Your task to perform on an android device: Go to wifi settings Image 0: 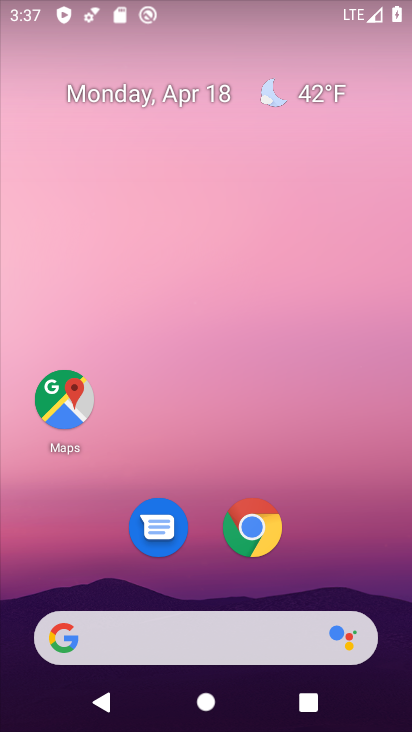
Step 0: drag from (399, 627) to (350, 71)
Your task to perform on an android device: Go to wifi settings Image 1: 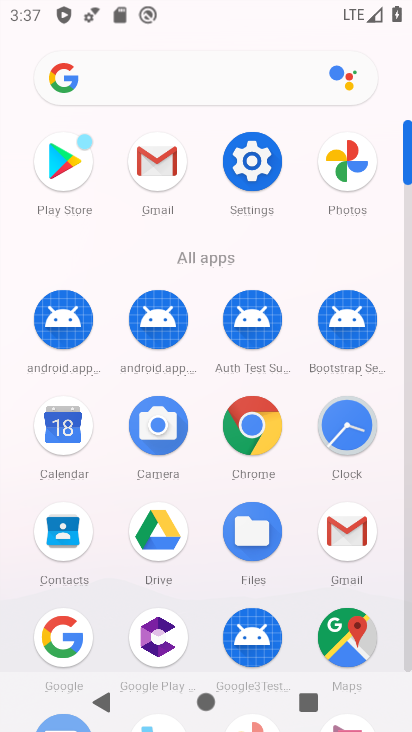
Step 1: click (410, 650)
Your task to perform on an android device: Go to wifi settings Image 2: 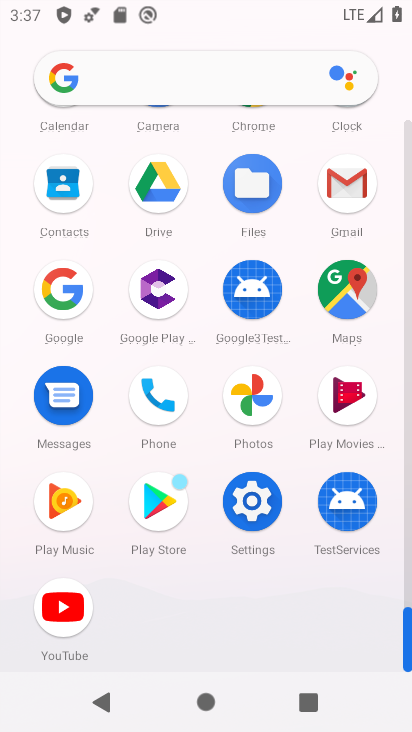
Step 2: click (252, 500)
Your task to perform on an android device: Go to wifi settings Image 3: 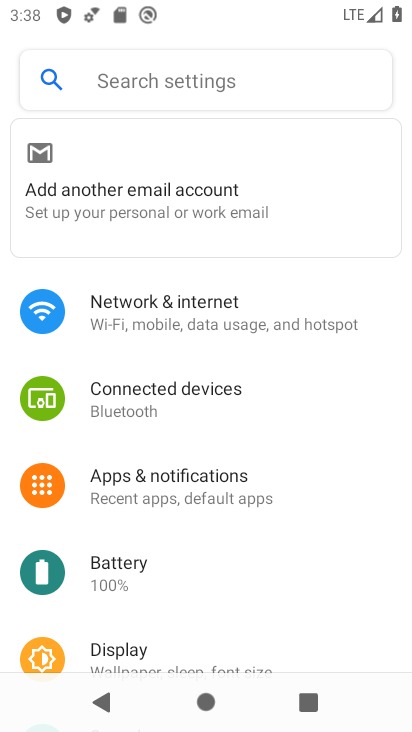
Step 3: click (155, 316)
Your task to perform on an android device: Go to wifi settings Image 4: 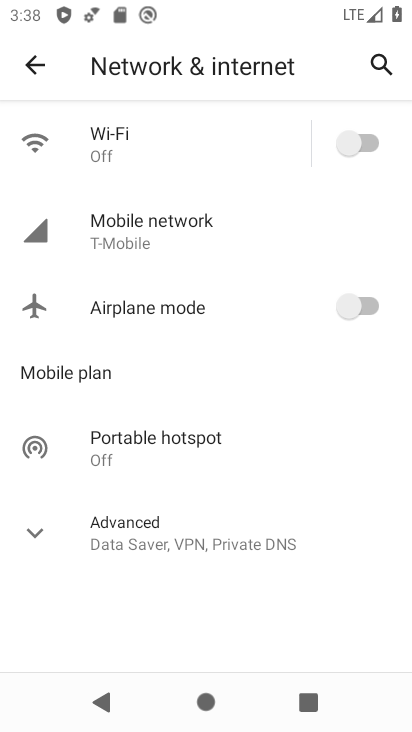
Step 4: click (102, 132)
Your task to perform on an android device: Go to wifi settings Image 5: 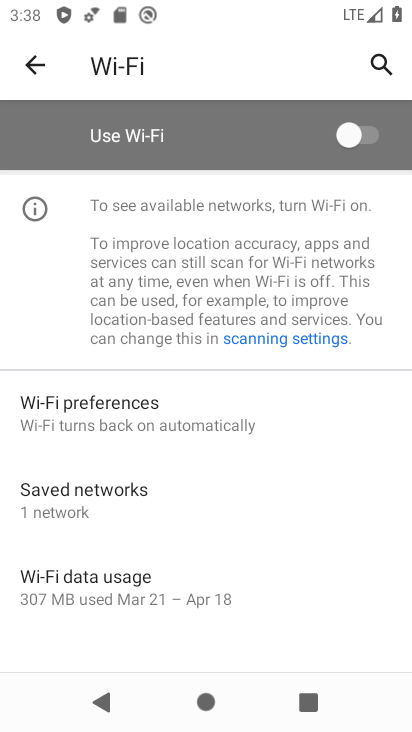
Step 5: task complete